Your task to perform on an android device: toggle notification dots Image 0: 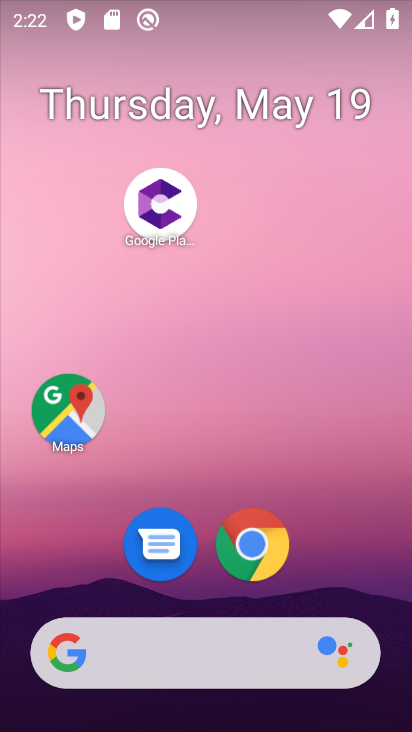
Step 0: drag from (270, 675) to (218, 222)
Your task to perform on an android device: toggle notification dots Image 1: 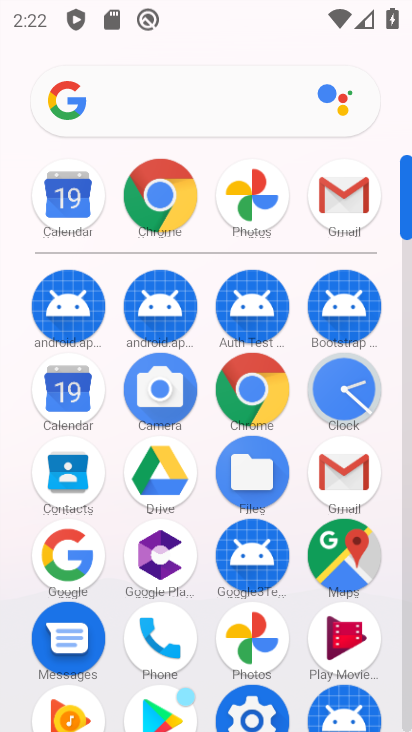
Step 1: click (244, 699)
Your task to perform on an android device: toggle notification dots Image 2: 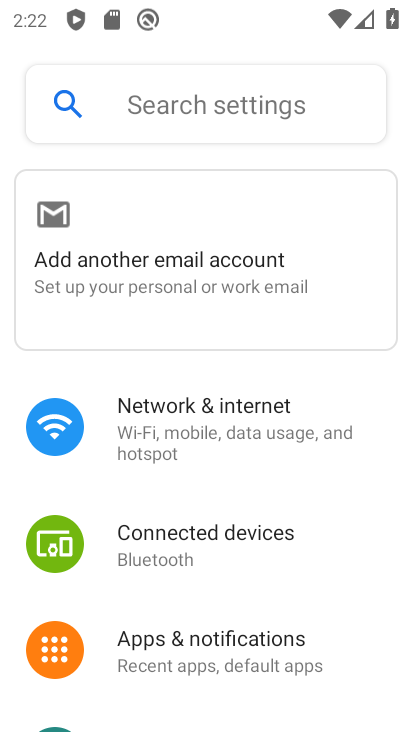
Step 2: click (221, 116)
Your task to perform on an android device: toggle notification dots Image 3: 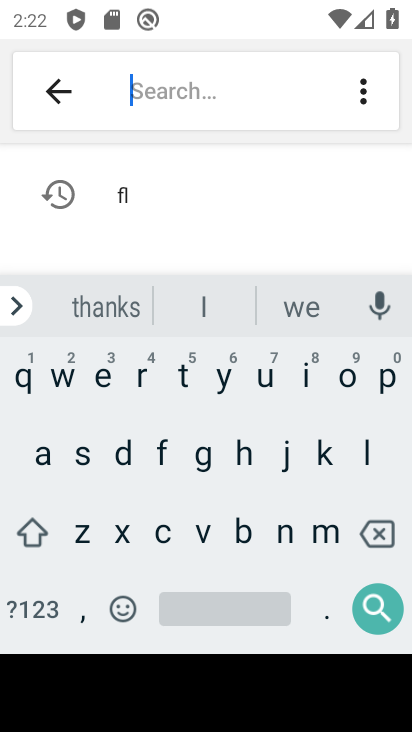
Step 3: click (120, 453)
Your task to perform on an android device: toggle notification dots Image 4: 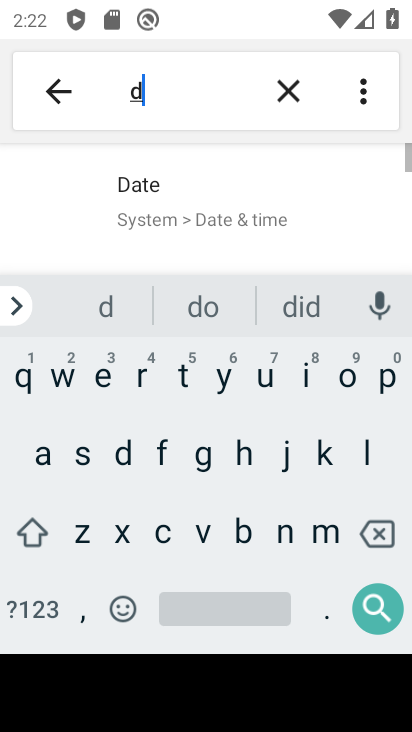
Step 4: click (344, 378)
Your task to perform on an android device: toggle notification dots Image 5: 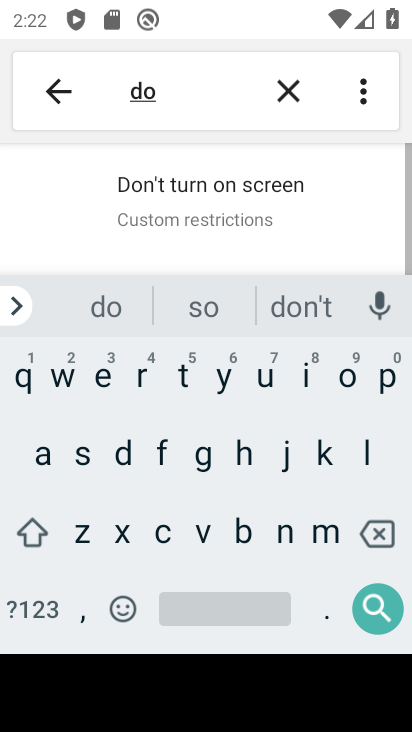
Step 5: click (195, 374)
Your task to perform on an android device: toggle notification dots Image 6: 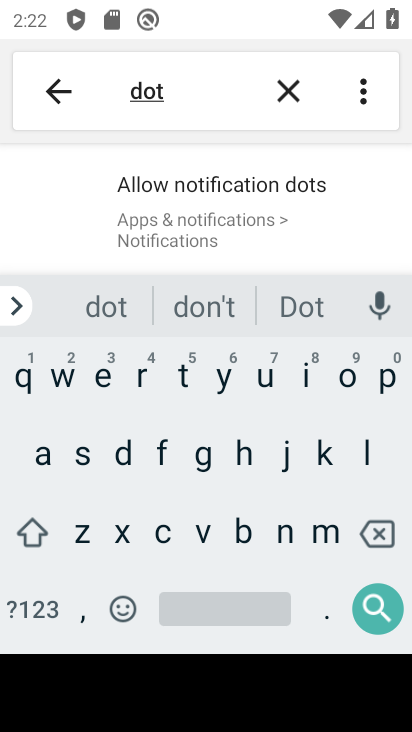
Step 6: click (215, 196)
Your task to perform on an android device: toggle notification dots Image 7: 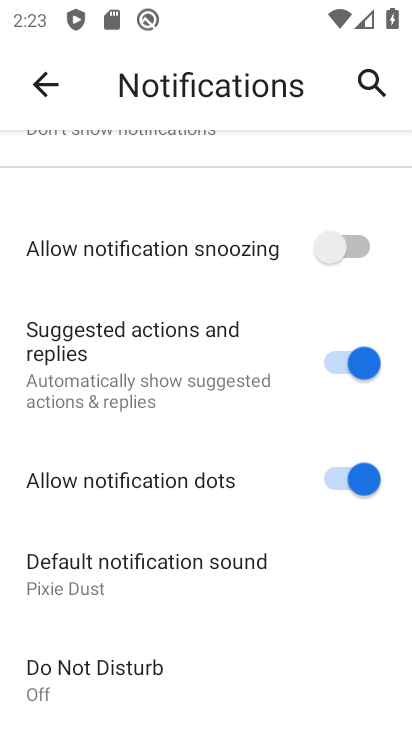
Step 7: task complete